Your task to perform on an android device: change the upload size in google photos Image 0: 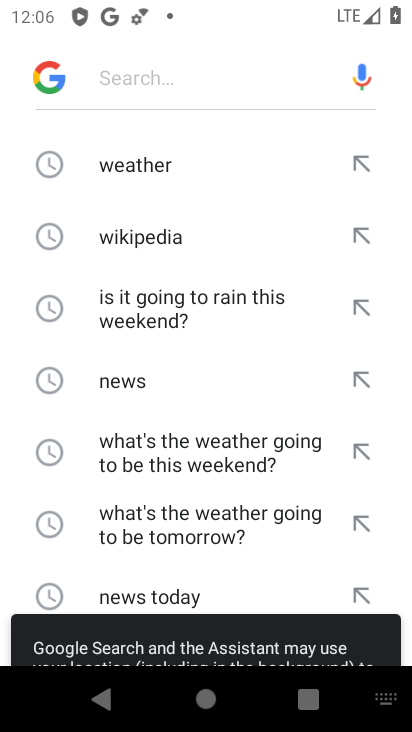
Step 0: press home button
Your task to perform on an android device: change the upload size in google photos Image 1: 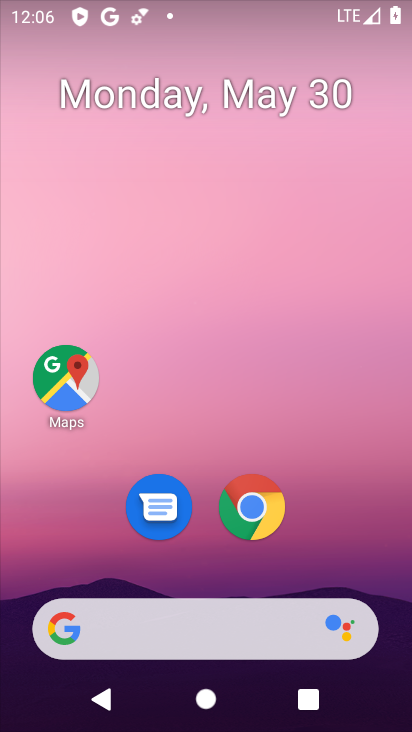
Step 1: drag from (319, 547) to (315, 90)
Your task to perform on an android device: change the upload size in google photos Image 2: 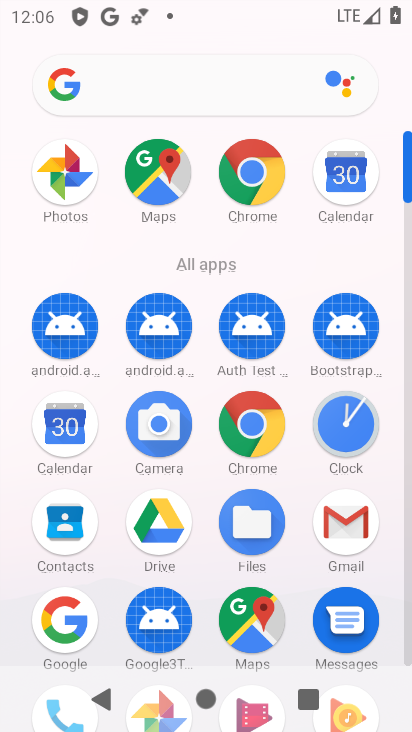
Step 2: click (59, 165)
Your task to perform on an android device: change the upload size in google photos Image 3: 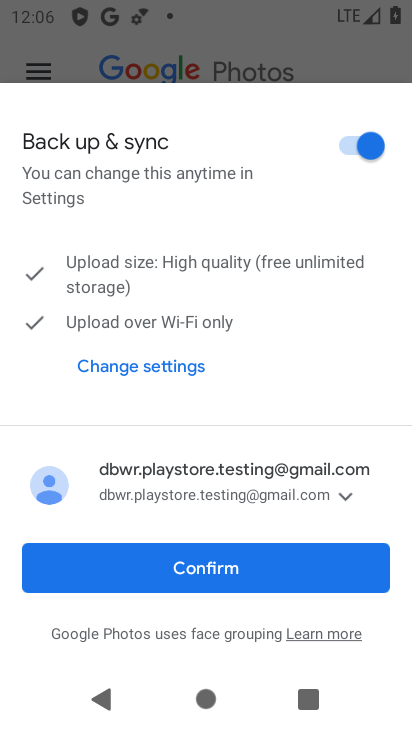
Step 3: click (318, 586)
Your task to perform on an android device: change the upload size in google photos Image 4: 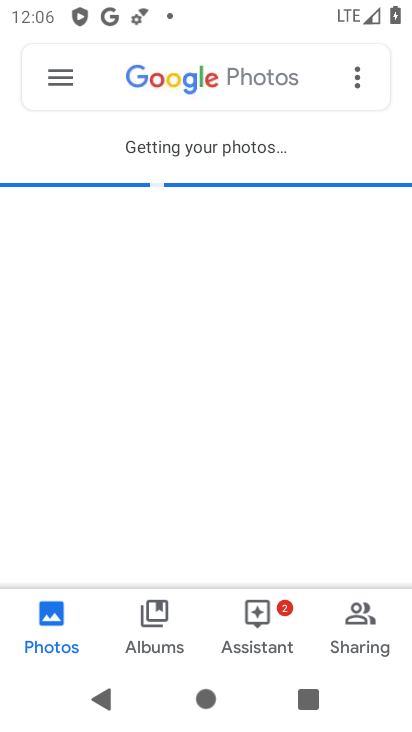
Step 4: click (59, 84)
Your task to perform on an android device: change the upload size in google photos Image 5: 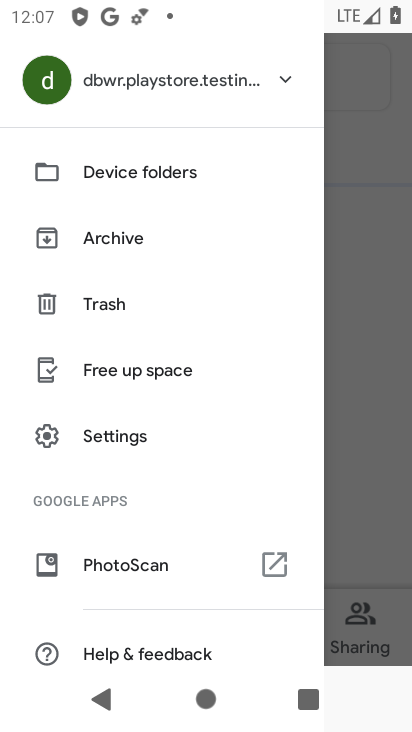
Step 5: click (108, 434)
Your task to perform on an android device: change the upload size in google photos Image 6: 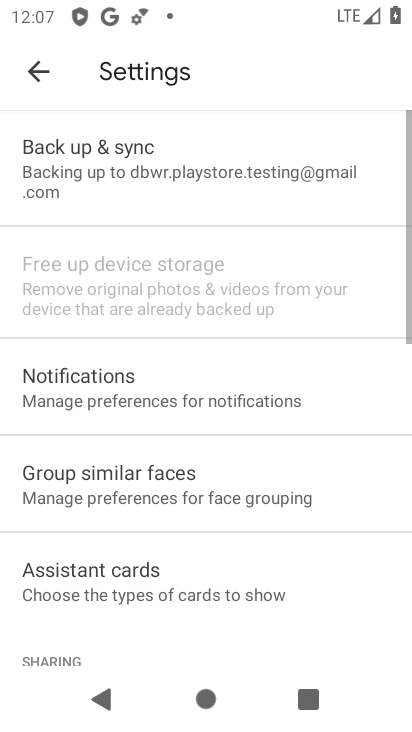
Step 6: click (126, 179)
Your task to perform on an android device: change the upload size in google photos Image 7: 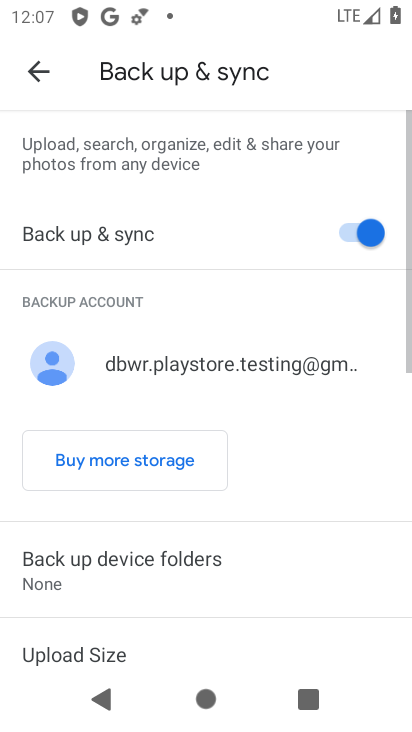
Step 7: drag from (296, 597) to (266, 230)
Your task to perform on an android device: change the upload size in google photos Image 8: 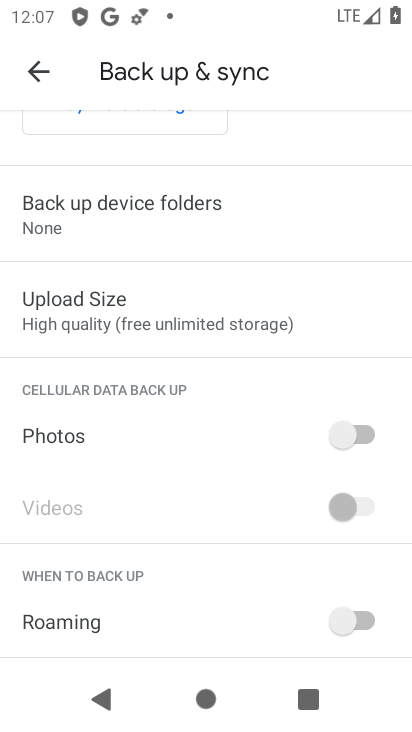
Step 8: click (83, 312)
Your task to perform on an android device: change the upload size in google photos Image 9: 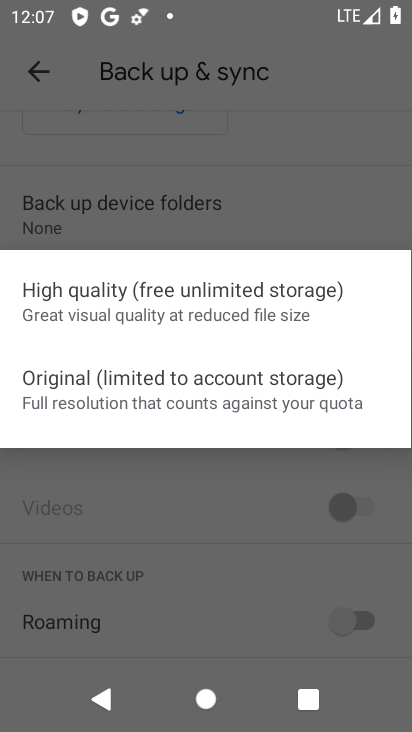
Step 9: click (92, 392)
Your task to perform on an android device: change the upload size in google photos Image 10: 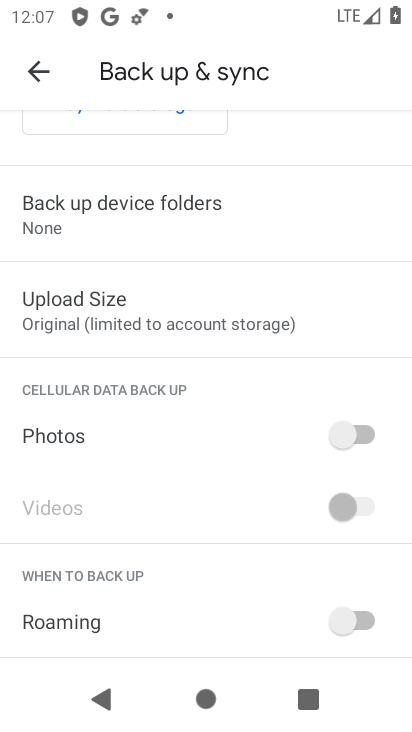
Step 10: task complete